Your task to perform on an android device: toggle improve location accuracy Image 0: 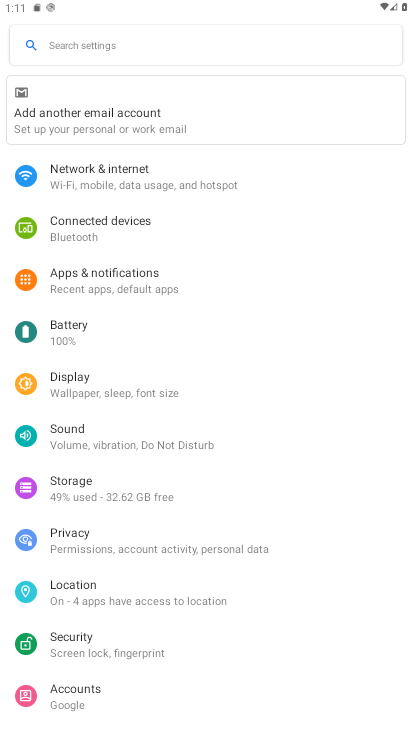
Step 0: press back button
Your task to perform on an android device: toggle improve location accuracy Image 1: 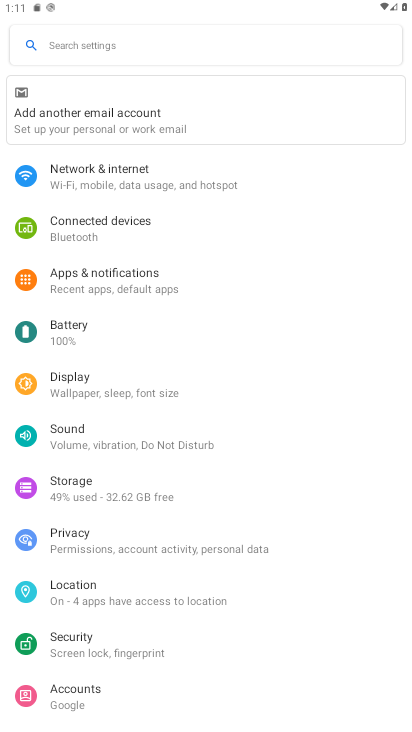
Step 1: press home button
Your task to perform on an android device: toggle improve location accuracy Image 2: 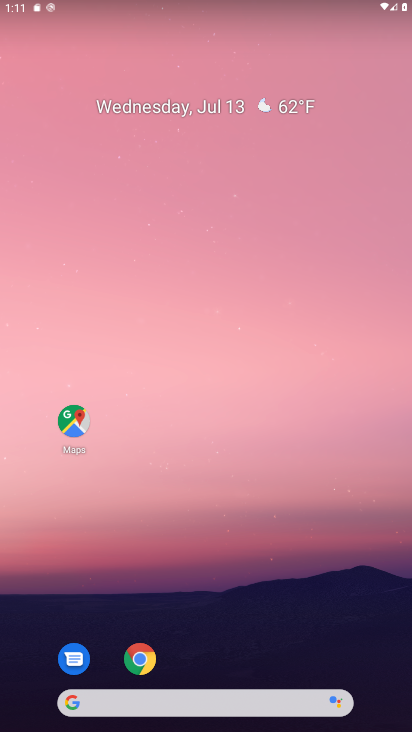
Step 2: drag from (324, 709) to (251, 174)
Your task to perform on an android device: toggle improve location accuracy Image 3: 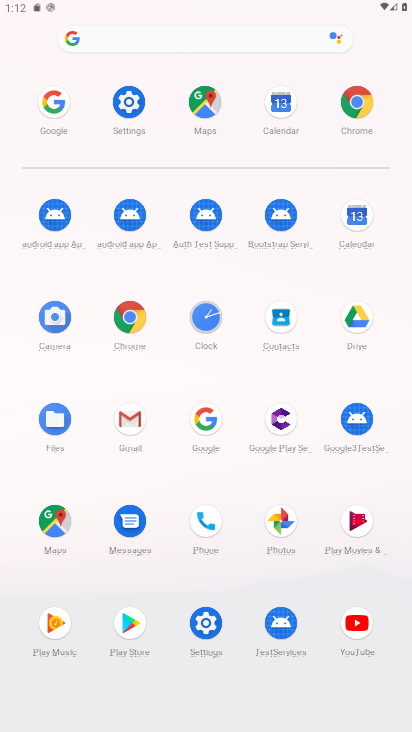
Step 3: click (132, 103)
Your task to perform on an android device: toggle improve location accuracy Image 4: 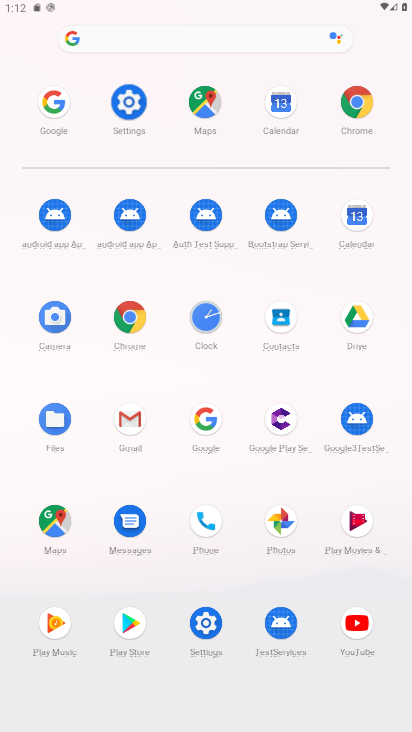
Step 4: click (123, 107)
Your task to perform on an android device: toggle improve location accuracy Image 5: 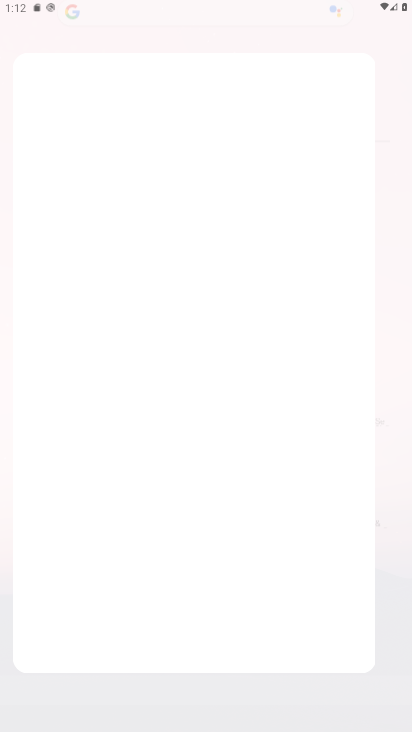
Step 5: click (126, 109)
Your task to perform on an android device: toggle improve location accuracy Image 6: 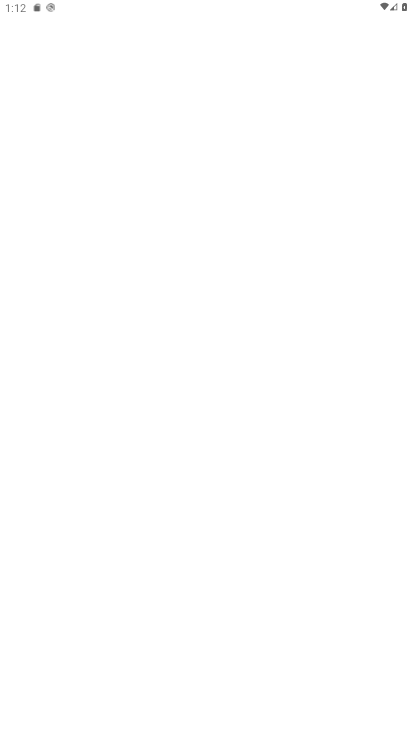
Step 6: click (124, 110)
Your task to perform on an android device: toggle improve location accuracy Image 7: 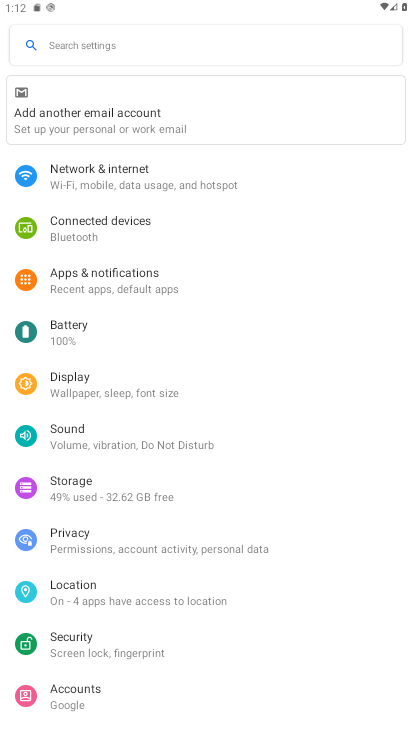
Step 7: click (95, 589)
Your task to perform on an android device: toggle improve location accuracy Image 8: 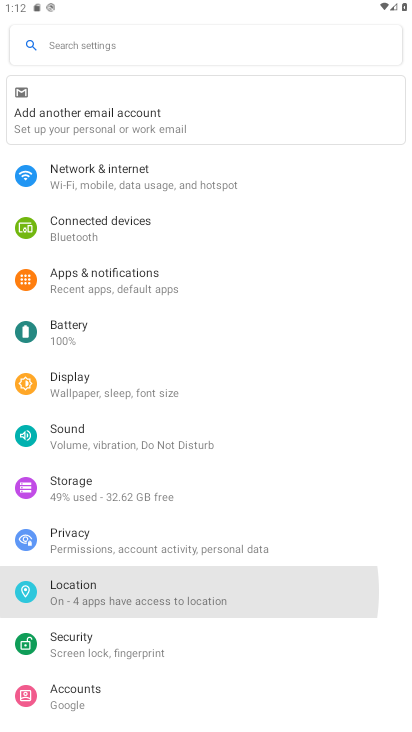
Step 8: click (96, 590)
Your task to perform on an android device: toggle improve location accuracy Image 9: 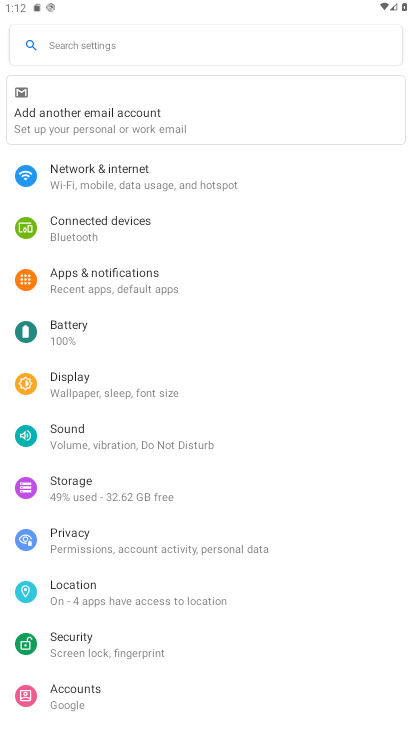
Step 9: click (96, 590)
Your task to perform on an android device: toggle improve location accuracy Image 10: 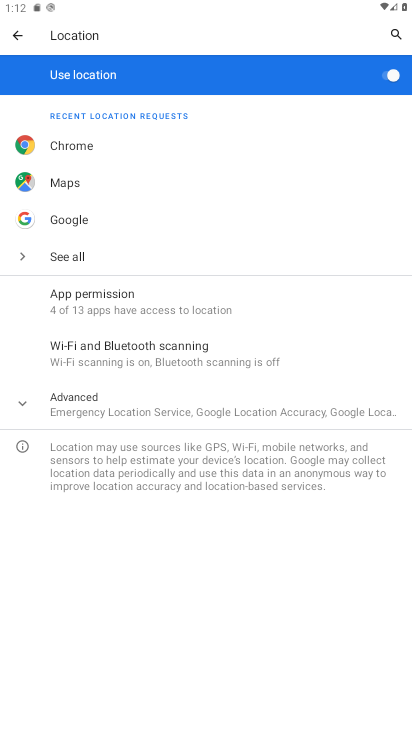
Step 10: click (140, 405)
Your task to perform on an android device: toggle improve location accuracy Image 11: 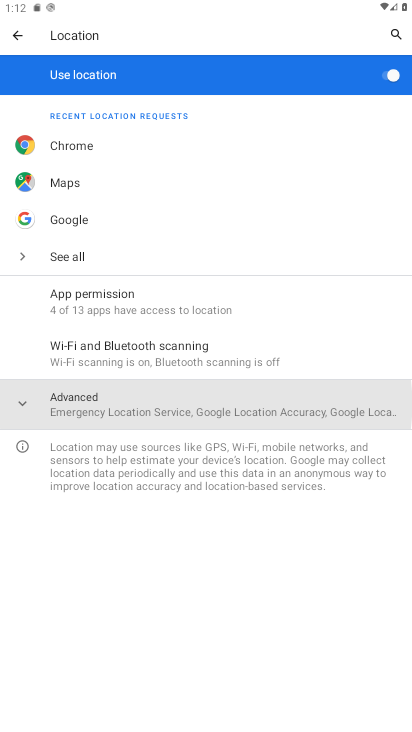
Step 11: click (140, 405)
Your task to perform on an android device: toggle improve location accuracy Image 12: 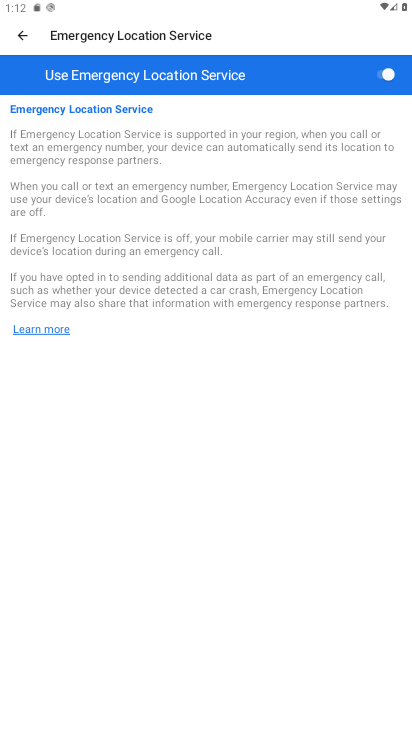
Step 12: click (19, 28)
Your task to perform on an android device: toggle improve location accuracy Image 13: 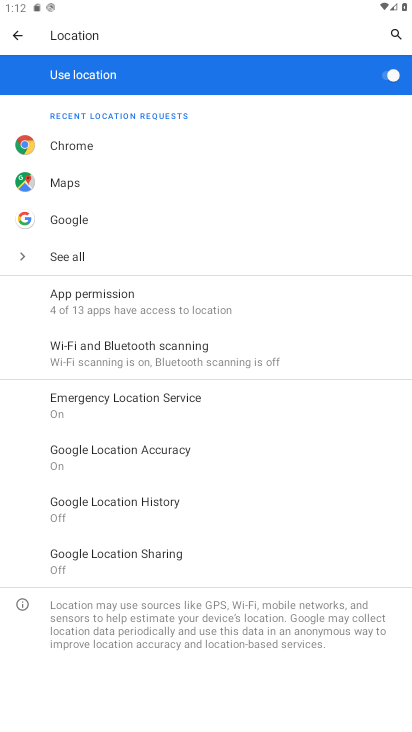
Step 13: click (152, 448)
Your task to perform on an android device: toggle improve location accuracy Image 14: 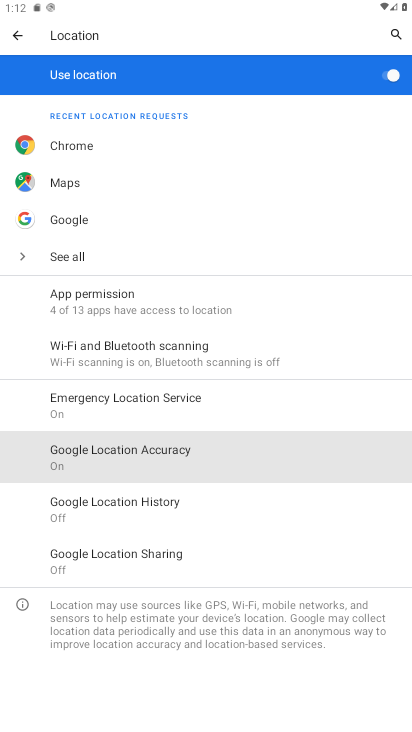
Step 14: click (152, 448)
Your task to perform on an android device: toggle improve location accuracy Image 15: 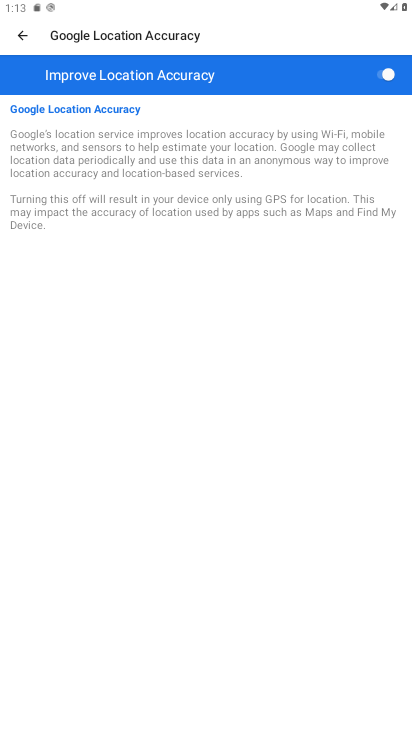
Step 15: task complete